Your task to perform on an android device: star an email in the gmail app Image 0: 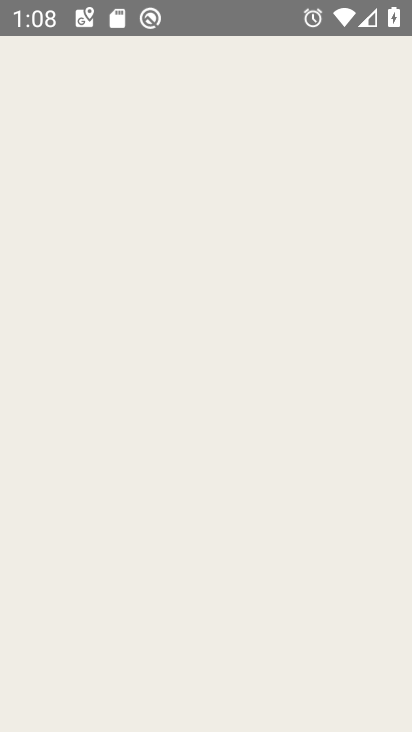
Step 0: press home button
Your task to perform on an android device: star an email in the gmail app Image 1: 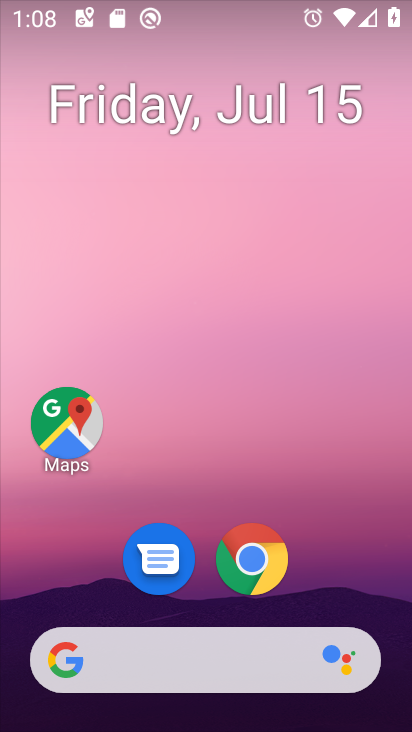
Step 1: drag from (351, 582) to (376, 92)
Your task to perform on an android device: star an email in the gmail app Image 2: 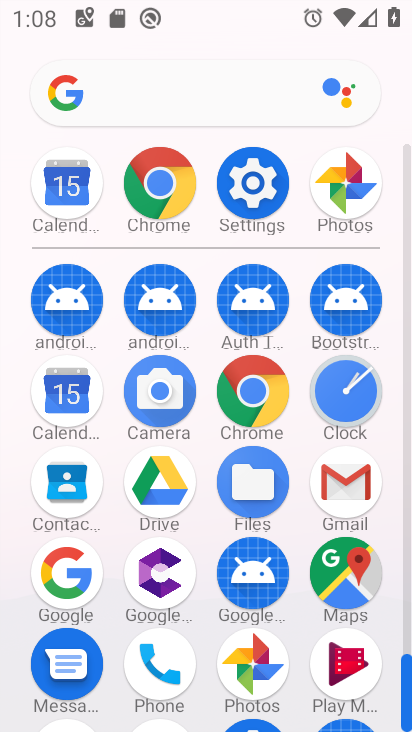
Step 2: click (336, 487)
Your task to perform on an android device: star an email in the gmail app Image 3: 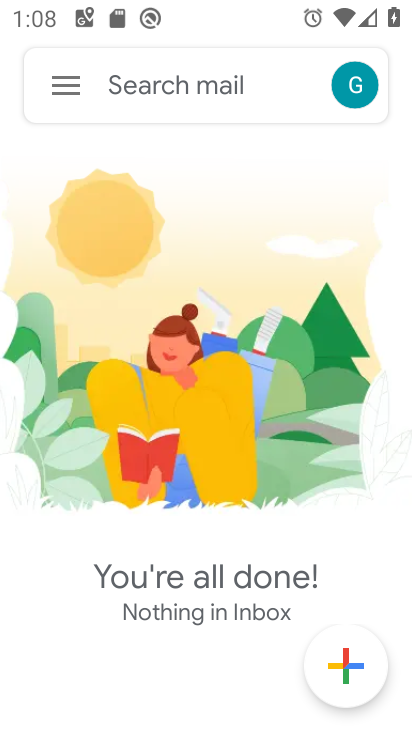
Step 3: click (68, 94)
Your task to perform on an android device: star an email in the gmail app Image 4: 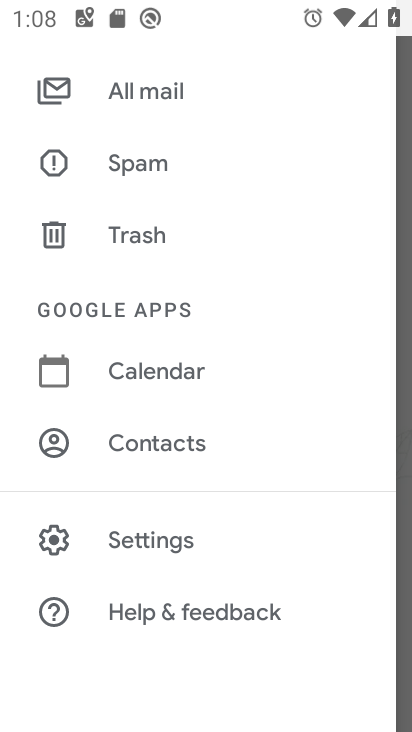
Step 4: drag from (243, 251) to (251, 319)
Your task to perform on an android device: star an email in the gmail app Image 5: 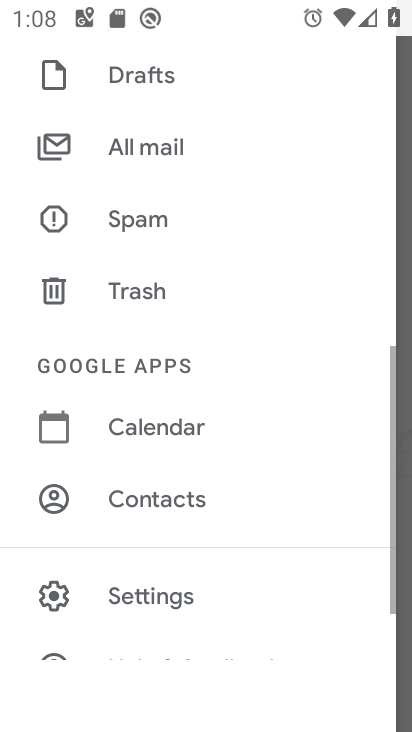
Step 5: drag from (294, 196) to (299, 324)
Your task to perform on an android device: star an email in the gmail app Image 6: 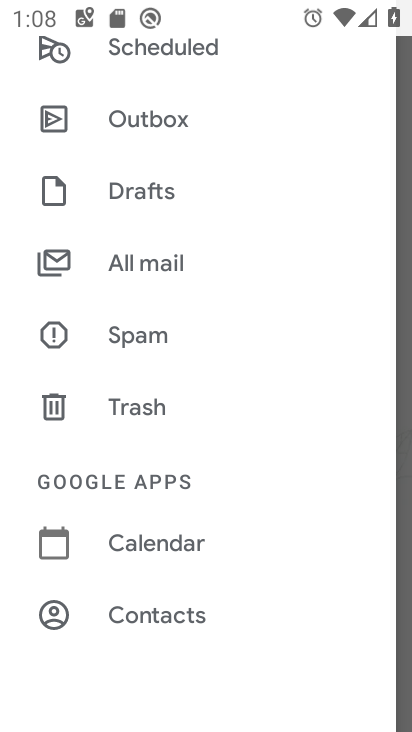
Step 6: drag from (291, 185) to (286, 333)
Your task to perform on an android device: star an email in the gmail app Image 7: 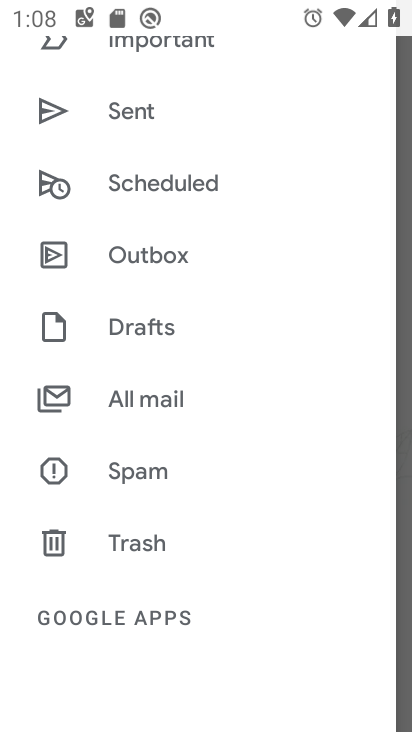
Step 7: drag from (270, 133) to (270, 235)
Your task to perform on an android device: star an email in the gmail app Image 8: 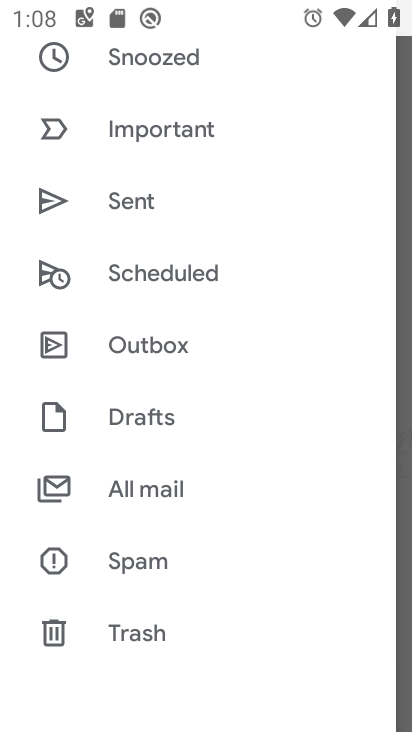
Step 8: click (187, 485)
Your task to perform on an android device: star an email in the gmail app Image 9: 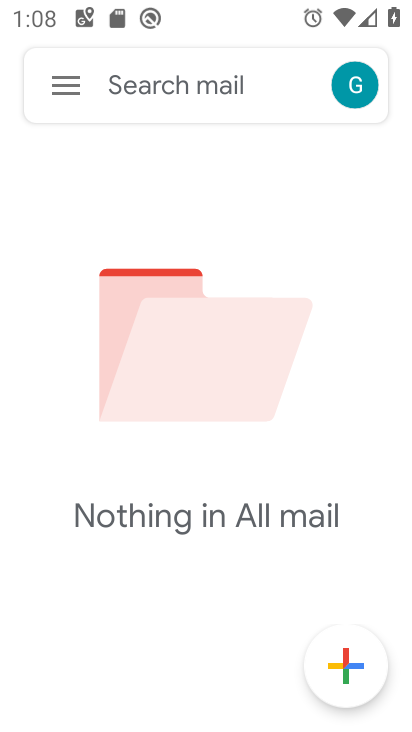
Step 9: task complete